Your task to perform on an android device: Search for Mexican restaurants on Maps Image 0: 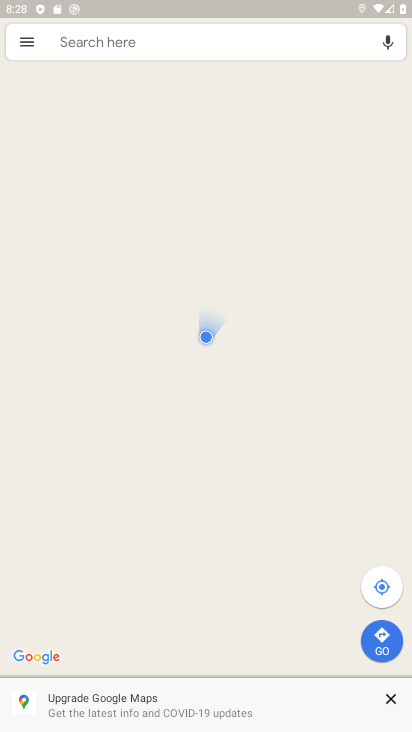
Step 0: press home button
Your task to perform on an android device: Search for Mexican restaurants on Maps Image 1: 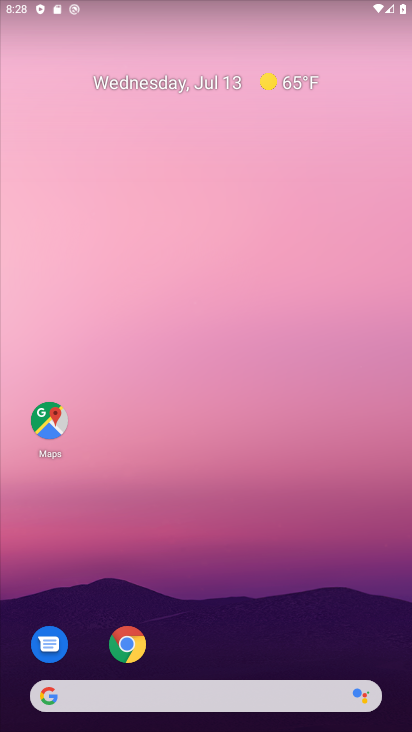
Step 1: drag from (295, 637) to (257, 21)
Your task to perform on an android device: Search for Mexican restaurants on Maps Image 2: 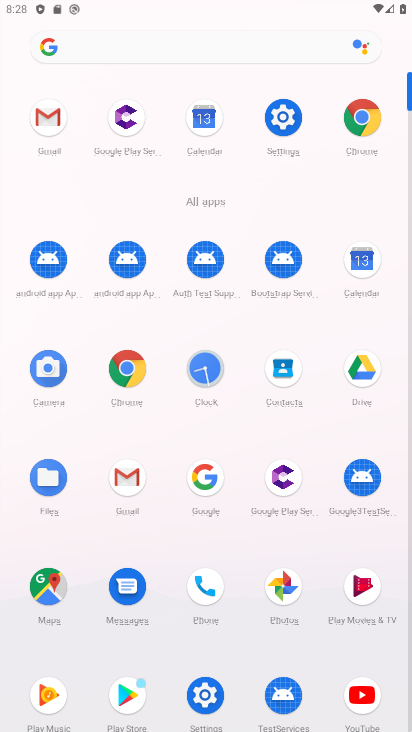
Step 2: click (54, 609)
Your task to perform on an android device: Search for Mexican restaurants on Maps Image 3: 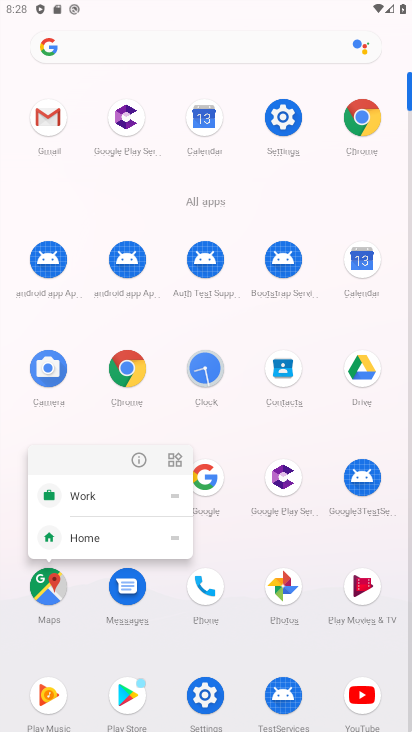
Step 3: click (43, 594)
Your task to perform on an android device: Search for Mexican restaurants on Maps Image 4: 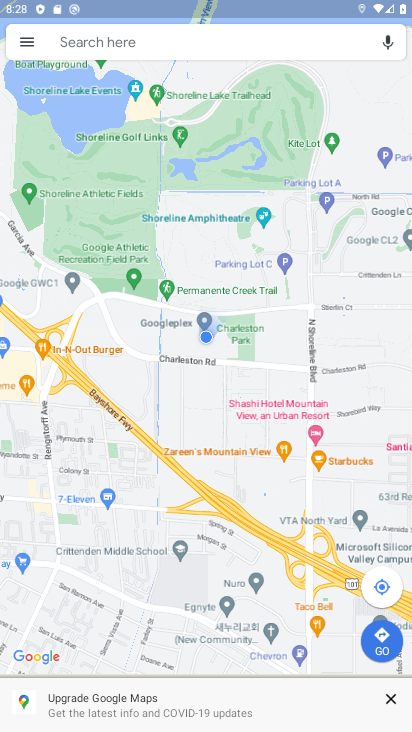
Step 4: click (207, 32)
Your task to perform on an android device: Search for Mexican restaurants on Maps Image 5: 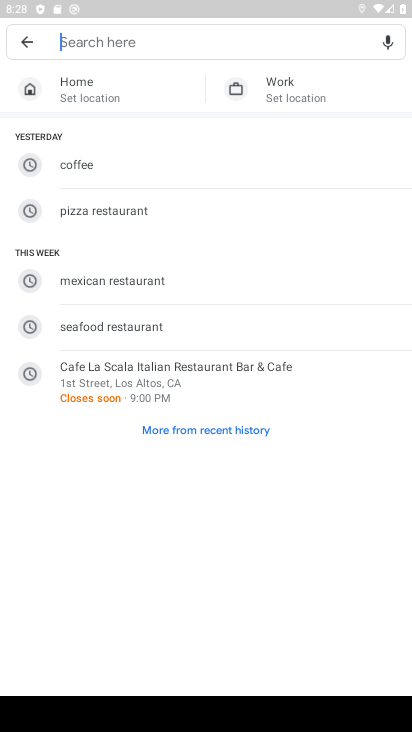
Step 5: click (118, 279)
Your task to perform on an android device: Search for Mexican restaurants on Maps Image 6: 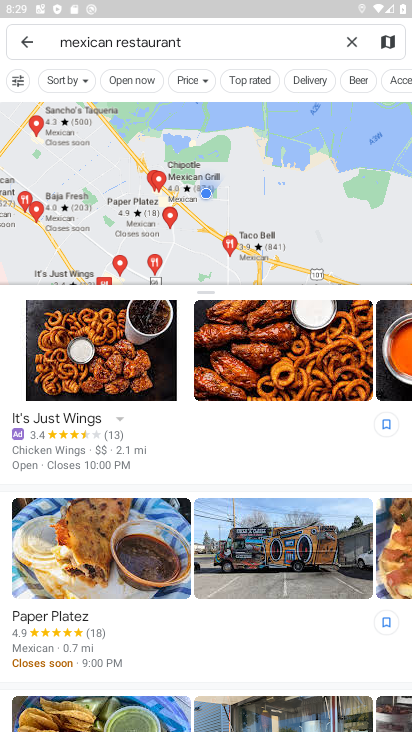
Step 6: task complete